Your task to perform on an android device: allow cookies in the chrome app Image 0: 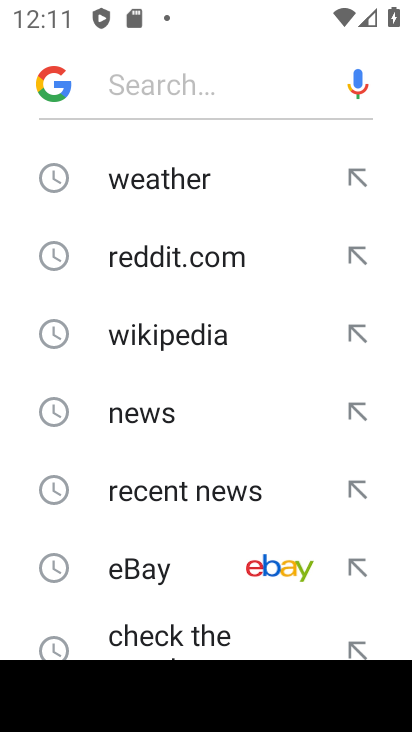
Step 0: press back button
Your task to perform on an android device: allow cookies in the chrome app Image 1: 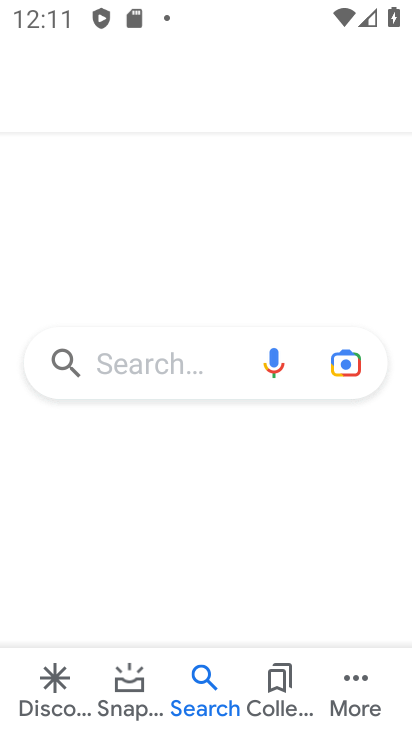
Step 1: press home button
Your task to perform on an android device: allow cookies in the chrome app Image 2: 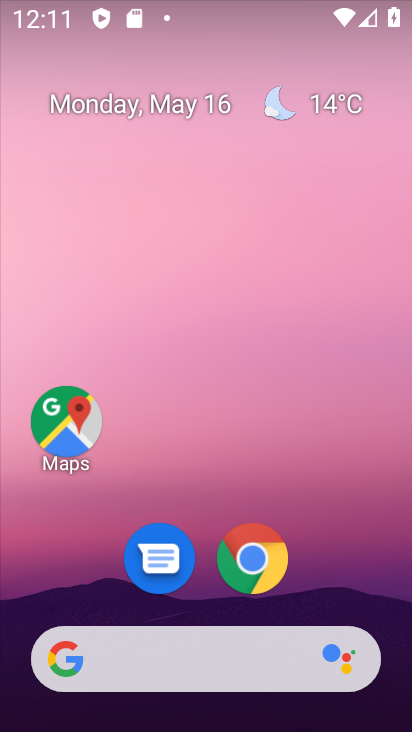
Step 2: drag from (357, 590) to (350, 110)
Your task to perform on an android device: allow cookies in the chrome app Image 3: 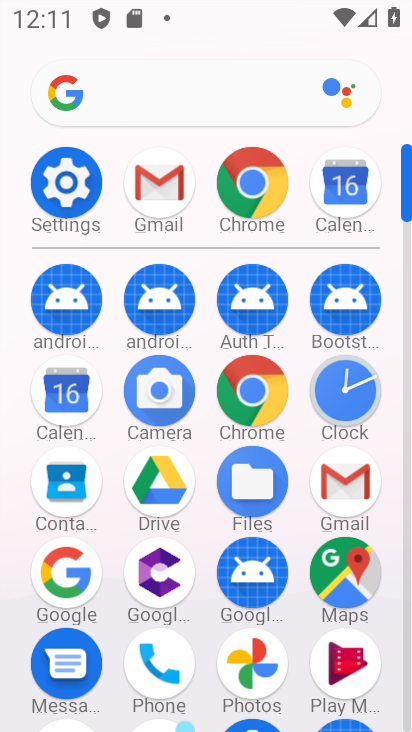
Step 3: click (265, 405)
Your task to perform on an android device: allow cookies in the chrome app Image 4: 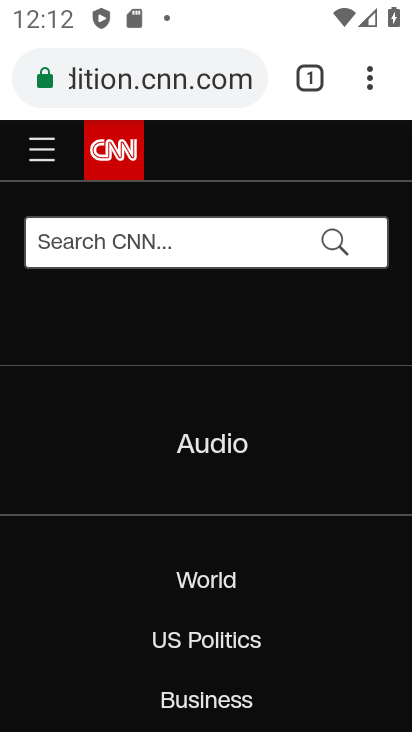
Step 4: click (368, 86)
Your task to perform on an android device: allow cookies in the chrome app Image 5: 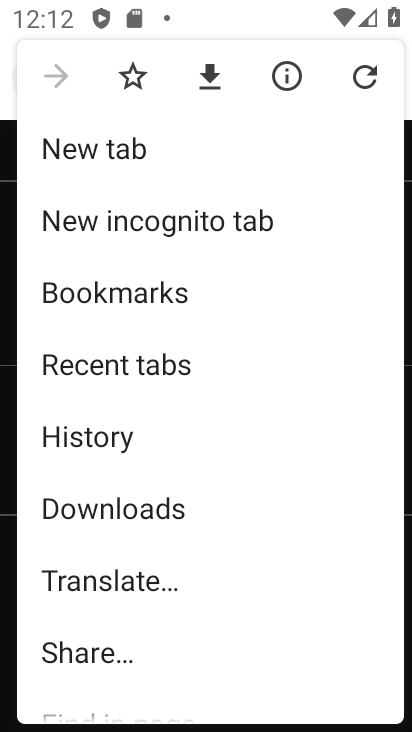
Step 5: drag from (291, 582) to (294, 436)
Your task to perform on an android device: allow cookies in the chrome app Image 6: 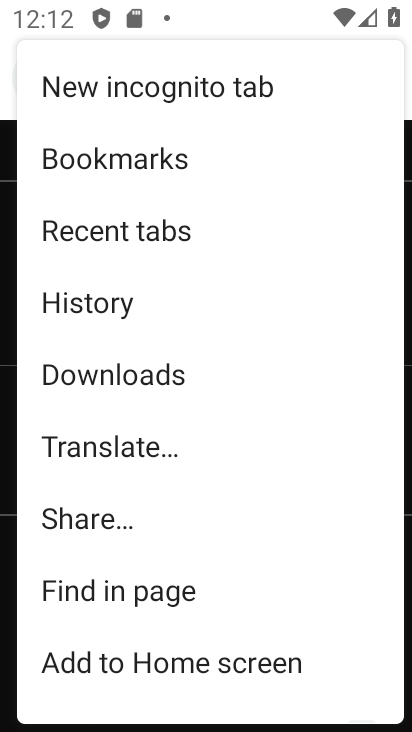
Step 6: drag from (305, 598) to (305, 454)
Your task to perform on an android device: allow cookies in the chrome app Image 7: 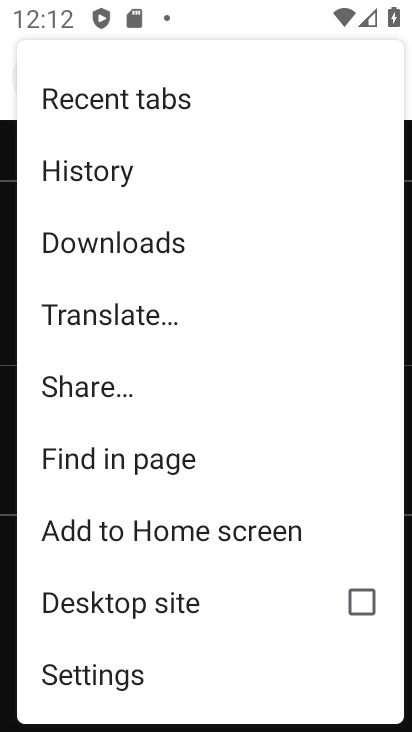
Step 7: drag from (265, 645) to (268, 471)
Your task to perform on an android device: allow cookies in the chrome app Image 8: 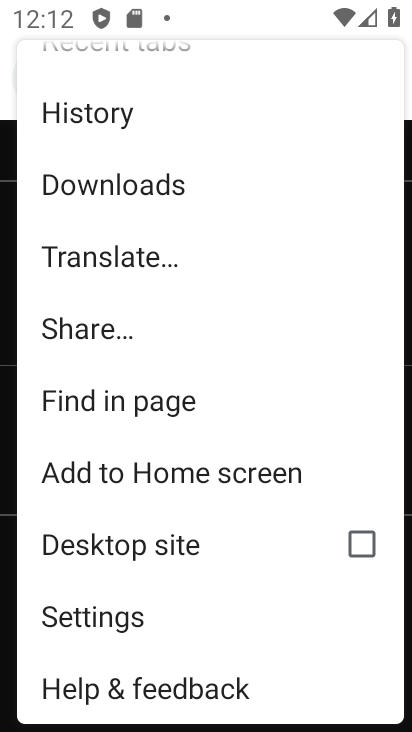
Step 8: click (131, 622)
Your task to perform on an android device: allow cookies in the chrome app Image 9: 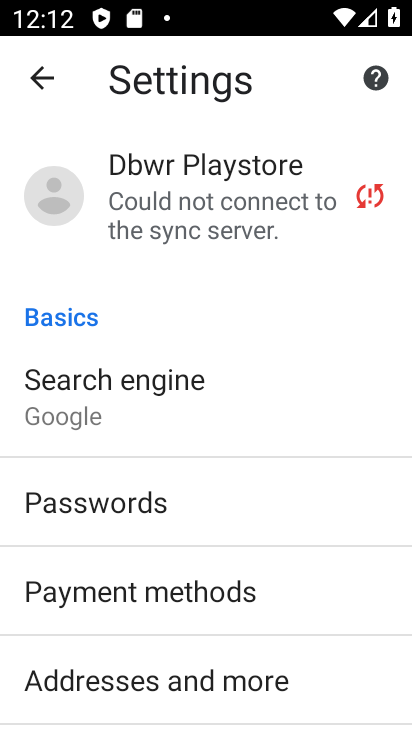
Step 9: drag from (306, 625) to (307, 509)
Your task to perform on an android device: allow cookies in the chrome app Image 10: 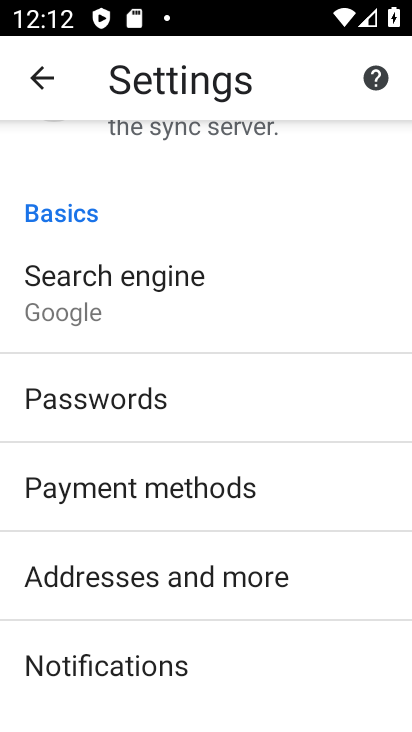
Step 10: drag from (317, 657) to (319, 495)
Your task to perform on an android device: allow cookies in the chrome app Image 11: 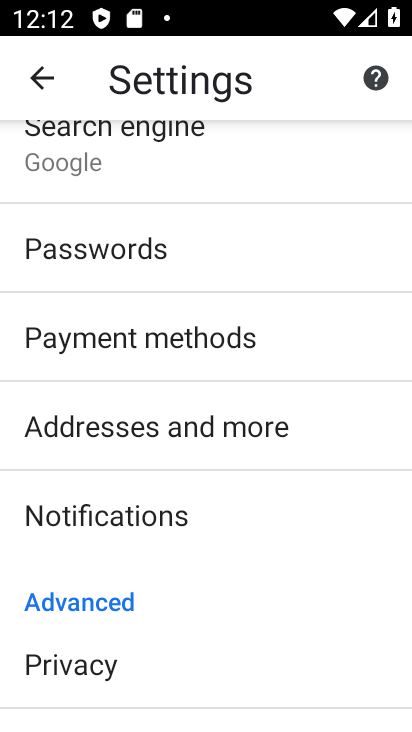
Step 11: drag from (305, 617) to (308, 501)
Your task to perform on an android device: allow cookies in the chrome app Image 12: 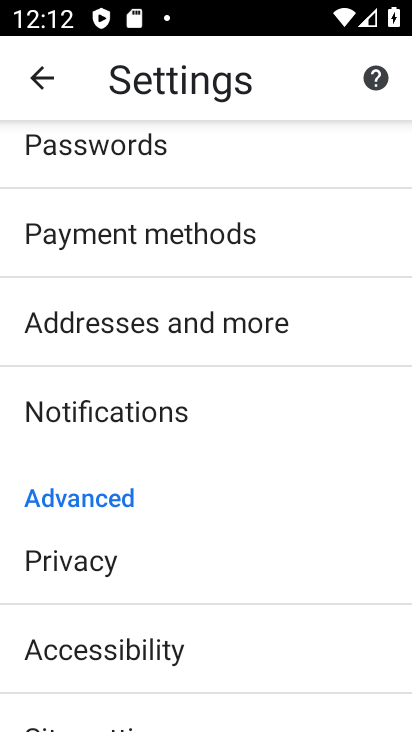
Step 12: drag from (312, 640) to (306, 464)
Your task to perform on an android device: allow cookies in the chrome app Image 13: 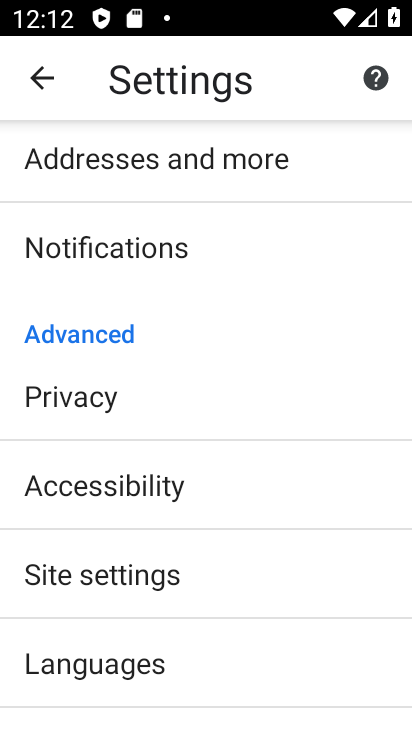
Step 13: click (259, 589)
Your task to perform on an android device: allow cookies in the chrome app Image 14: 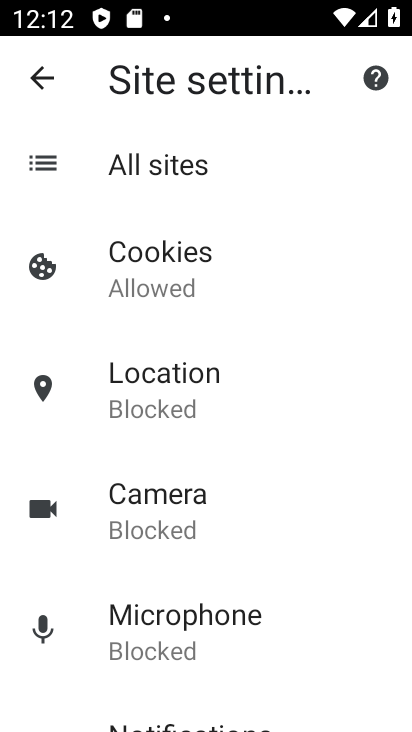
Step 14: drag from (333, 644) to (318, 499)
Your task to perform on an android device: allow cookies in the chrome app Image 15: 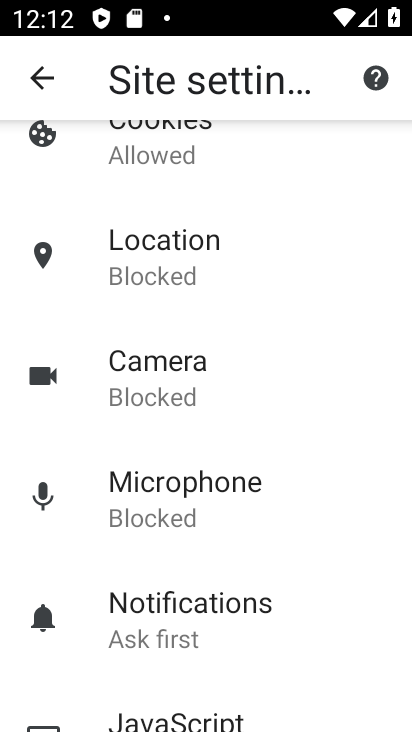
Step 15: drag from (331, 671) to (336, 552)
Your task to perform on an android device: allow cookies in the chrome app Image 16: 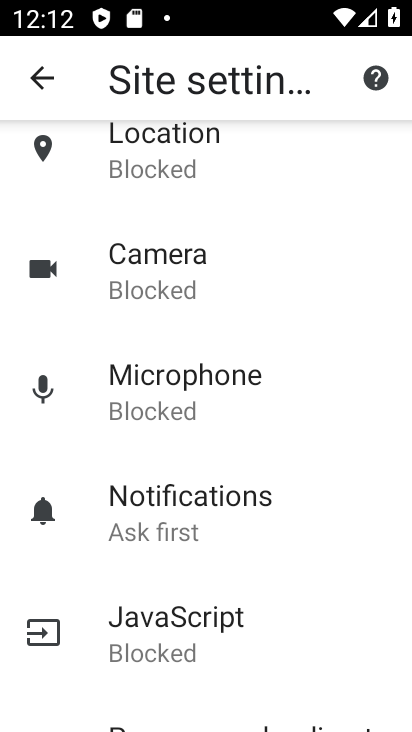
Step 16: drag from (341, 663) to (332, 536)
Your task to perform on an android device: allow cookies in the chrome app Image 17: 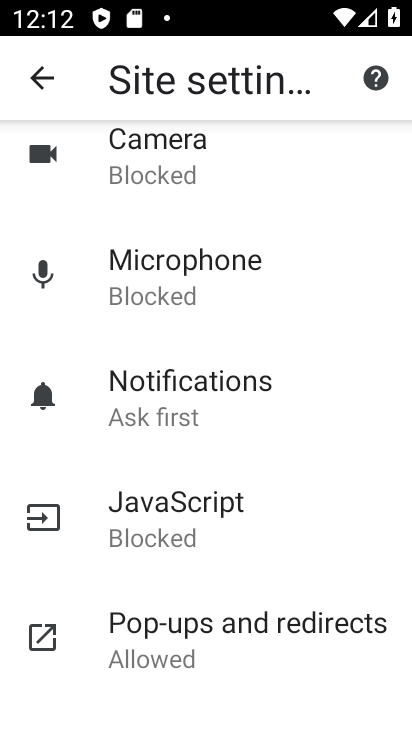
Step 17: drag from (333, 334) to (338, 513)
Your task to perform on an android device: allow cookies in the chrome app Image 18: 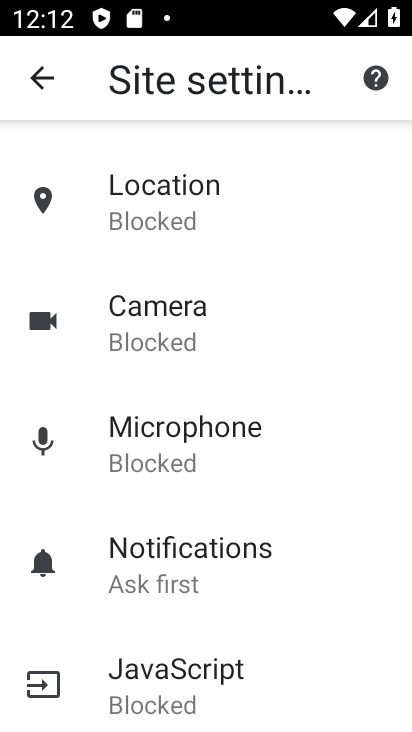
Step 18: drag from (332, 266) to (338, 411)
Your task to perform on an android device: allow cookies in the chrome app Image 19: 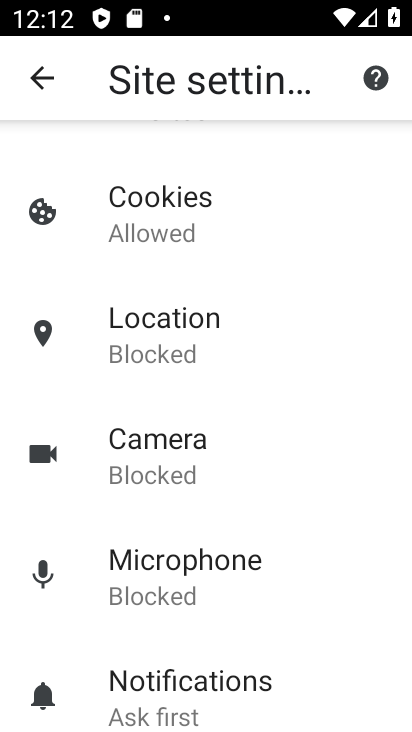
Step 19: drag from (324, 246) to (329, 420)
Your task to perform on an android device: allow cookies in the chrome app Image 20: 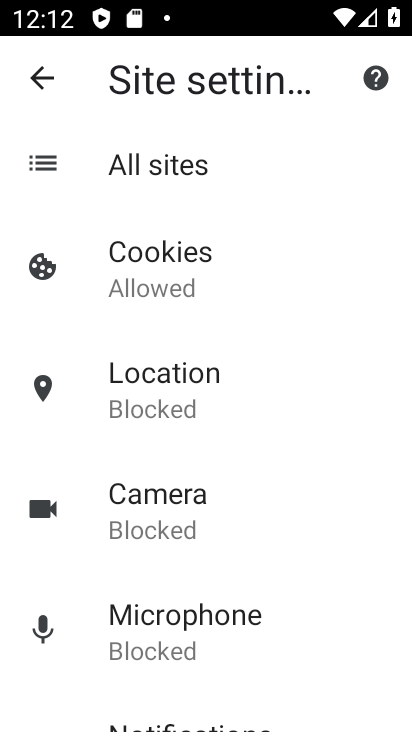
Step 20: click (181, 281)
Your task to perform on an android device: allow cookies in the chrome app Image 21: 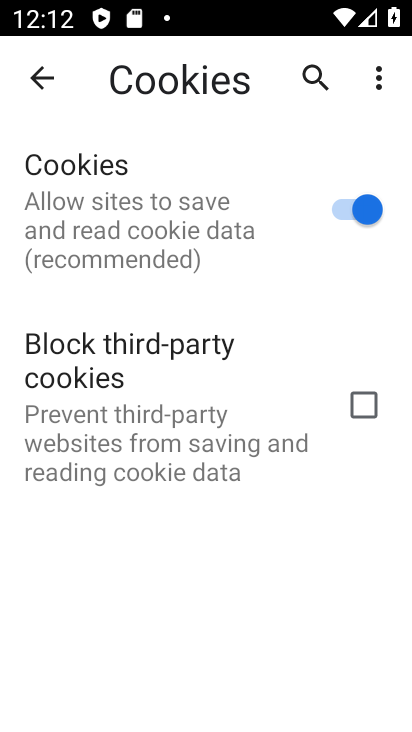
Step 21: task complete